Your task to perform on an android device: turn on wifi Image 0: 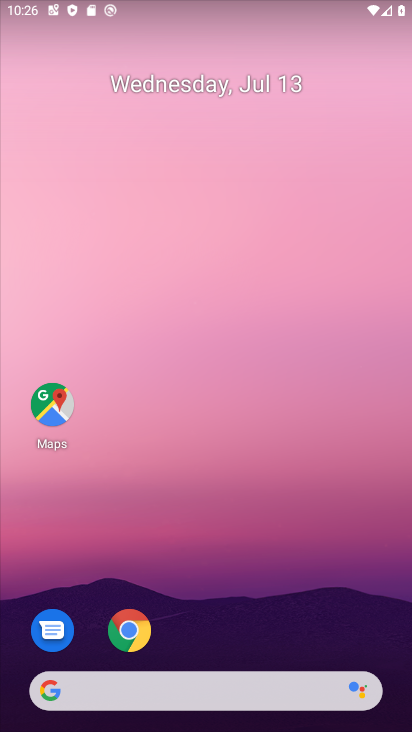
Step 0: drag from (256, 658) to (179, 143)
Your task to perform on an android device: turn on wifi Image 1: 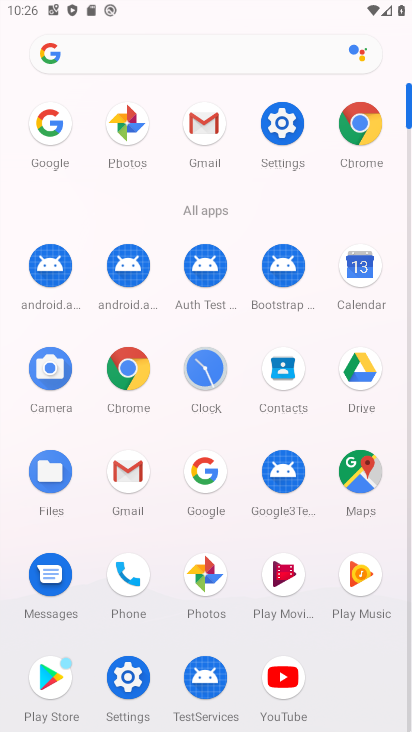
Step 1: click (273, 134)
Your task to perform on an android device: turn on wifi Image 2: 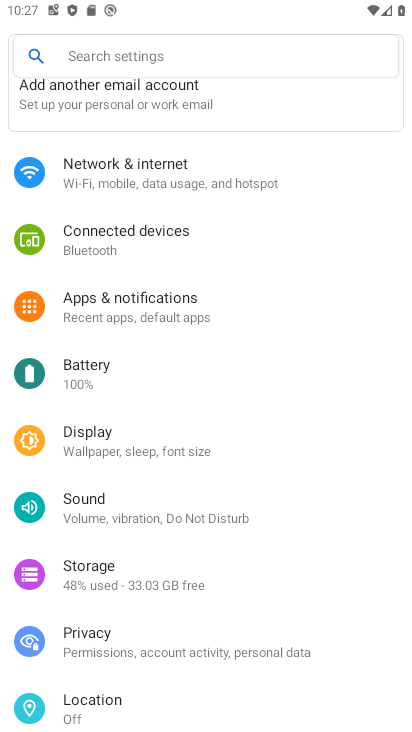
Step 2: click (165, 191)
Your task to perform on an android device: turn on wifi Image 3: 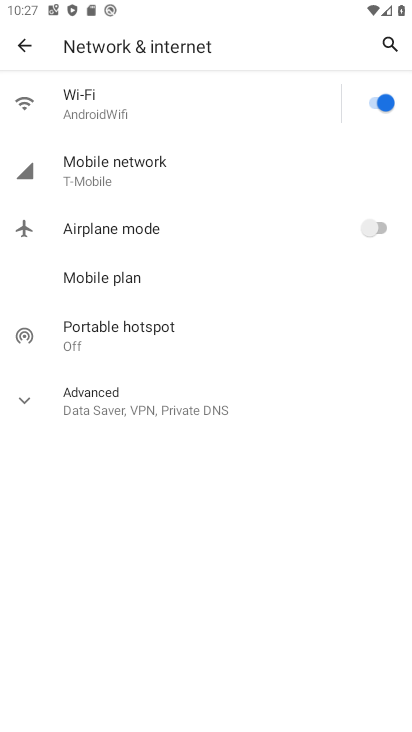
Step 3: task complete